Your task to perform on an android device: turn off airplane mode Image 0: 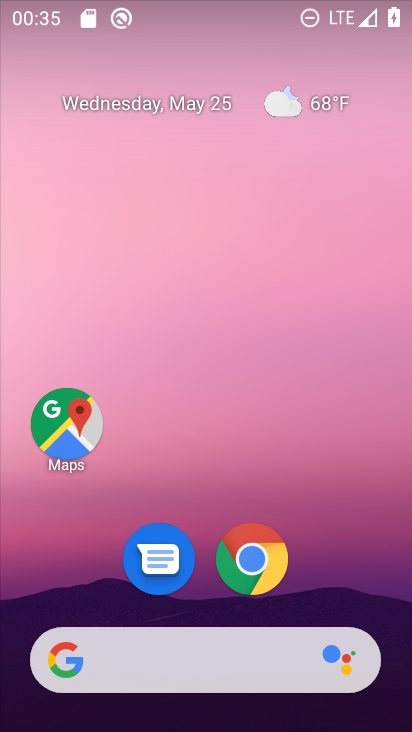
Step 0: drag from (374, 610) to (269, 32)
Your task to perform on an android device: turn off airplane mode Image 1: 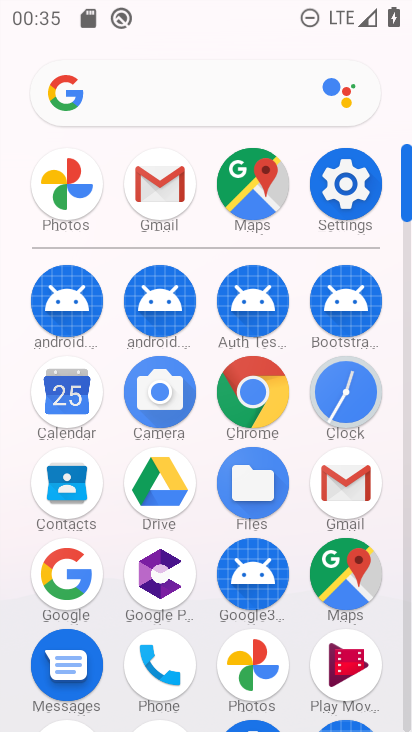
Step 1: click (411, 686)
Your task to perform on an android device: turn off airplane mode Image 2: 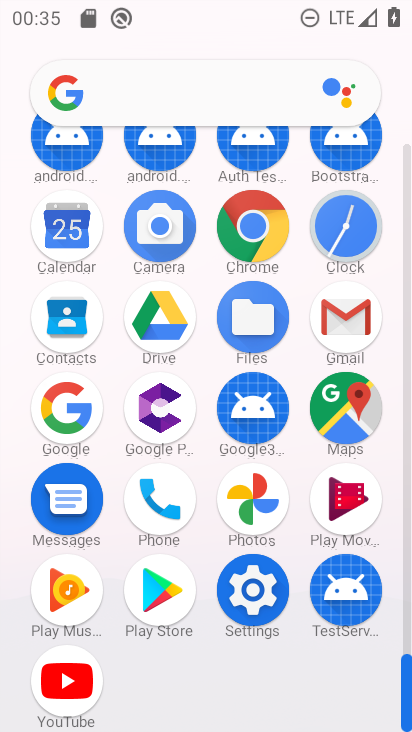
Step 2: click (253, 587)
Your task to perform on an android device: turn off airplane mode Image 3: 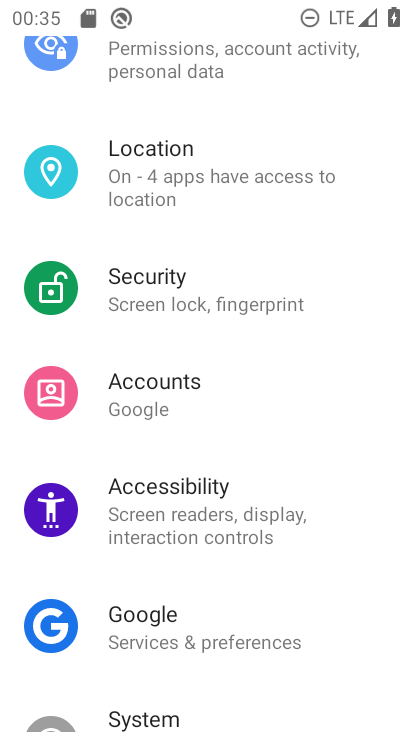
Step 3: drag from (309, 278) to (309, 474)
Your task to perform on an android device: turn off airplane mode Image 4: 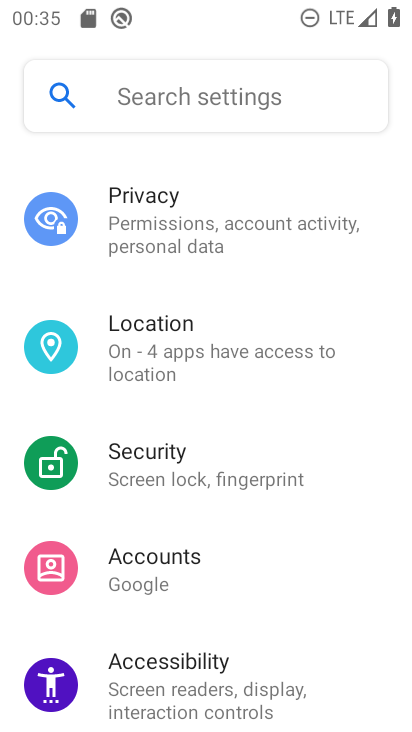
Step 4: drag from (338, 304) to (332, 552)
Your task to perform on an android device: turn off airplane mode Image 5: 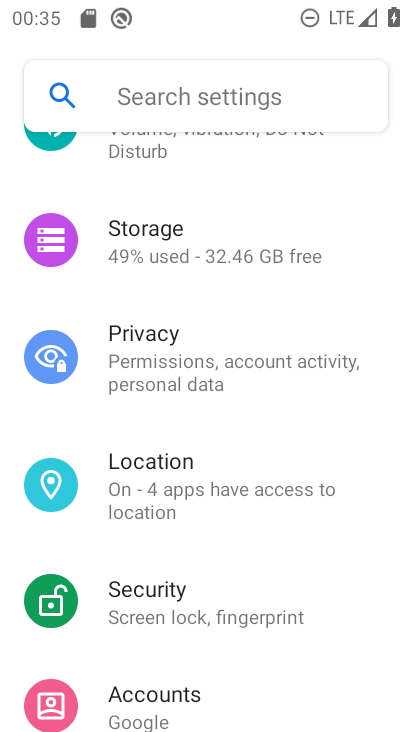
Step 5: drag from (349, 399) to (338, 587)
Your task to perform on an android device: turn off airplane mode Image 6: 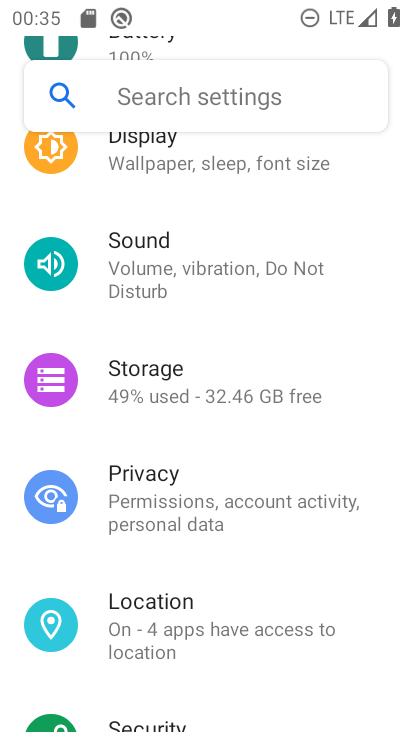
Step 6: drag from (297, 272) to (300, 548)
Your task to perform on an android device: turn off airplane mode Image 7: 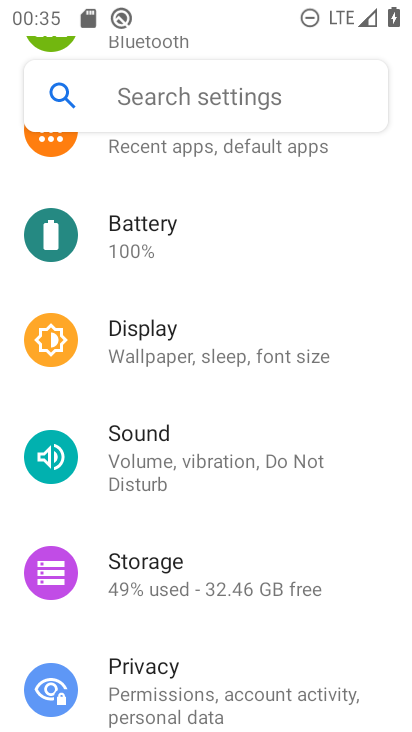
Step 7: drag from (268, 245) to (300, 554)
Your task to perform on an android device: turn off airplane mode Image 8: 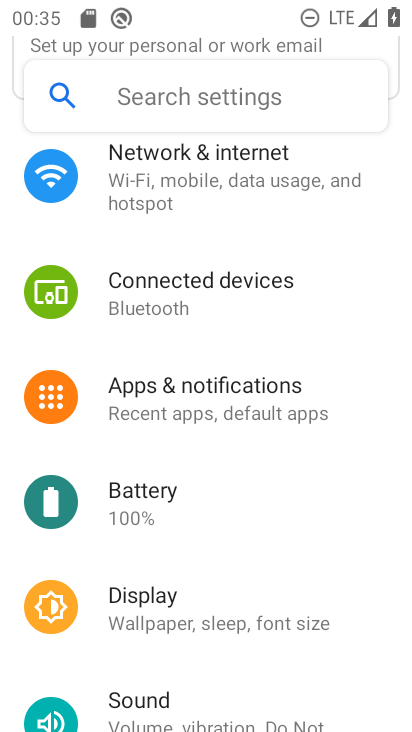
Step 8: click (135, 173)
Your task to perform on an android device: turn off airplane mode Image 9: 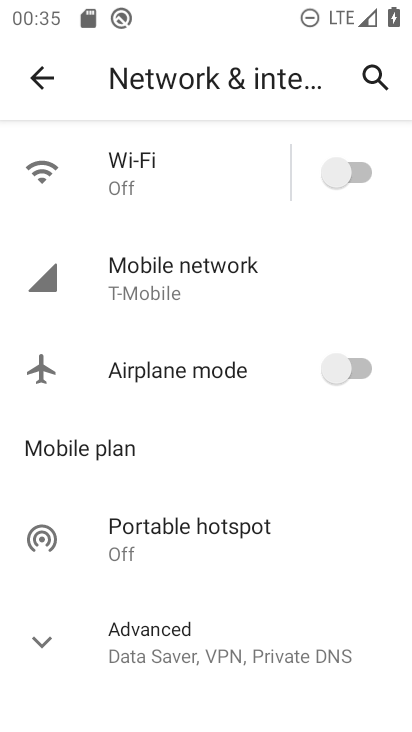
Step 9: task complete